Your task to perform on an android device: add a contact in the contacts app Image 0: 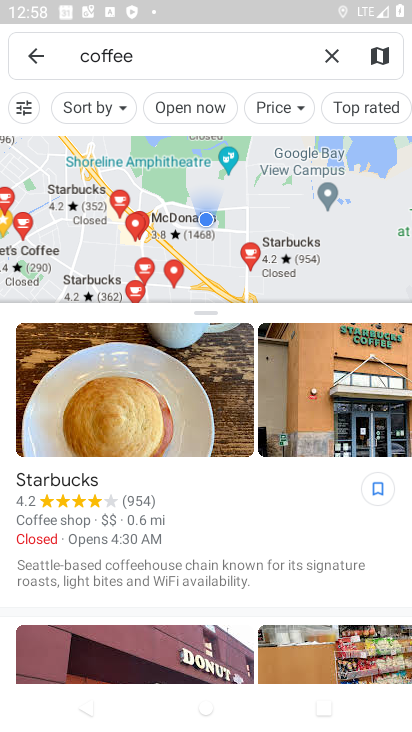
Step 0: press home button
Your task to perform on an android device: add a contact in the contacts app Image 1: 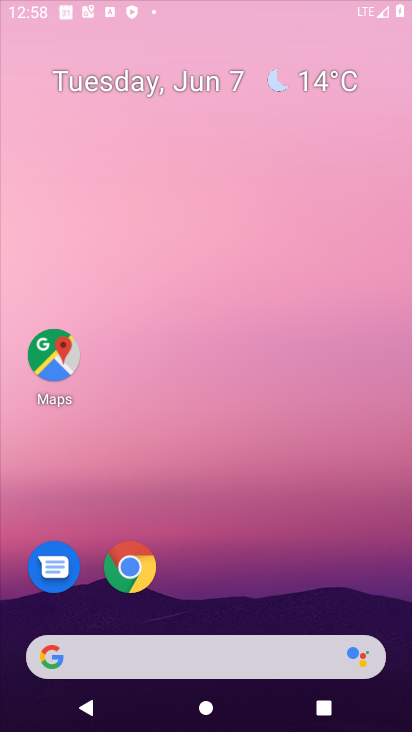
Step 1: drag from (293, 636) to (307, 132)
Your task to perform on an android device: add a contact in the contacts app Image 2: 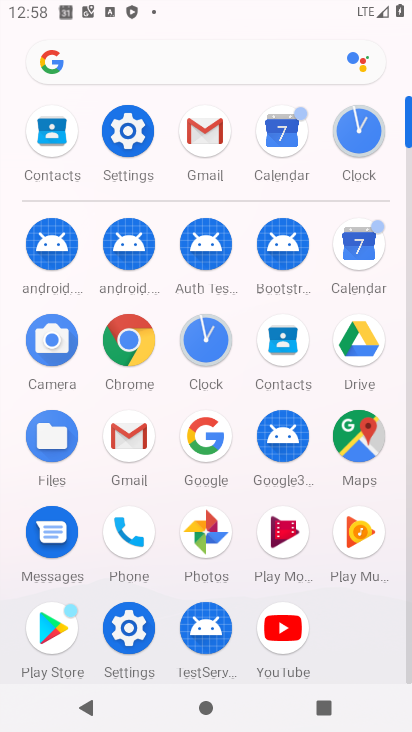
Step 2: click (276, 339)
Your task to perform on an android device: add a contact in the contacts app Image 3: 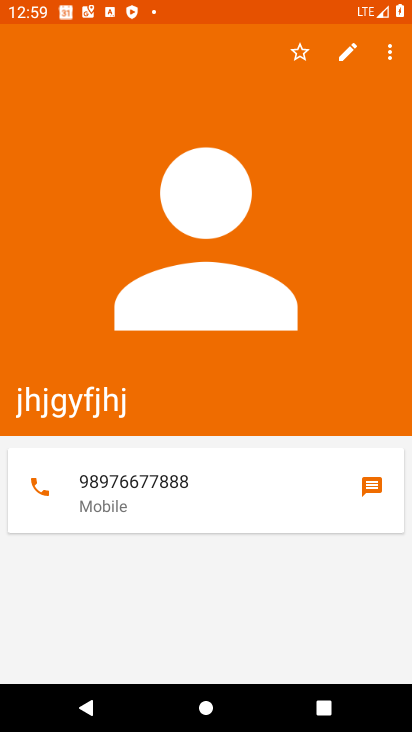
Step 3: press back button
Your task to perform on an android device: add a contact in the contacts app Image 4: 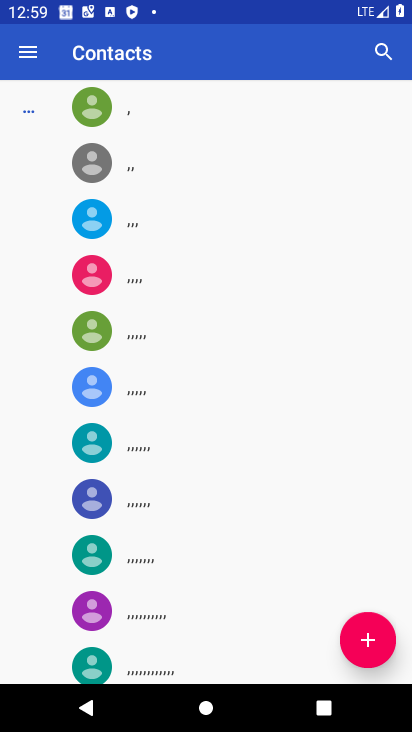
Step 4: click (353, 648)
Your task to perform on an android device: add a contact in the contacts app Image 5: 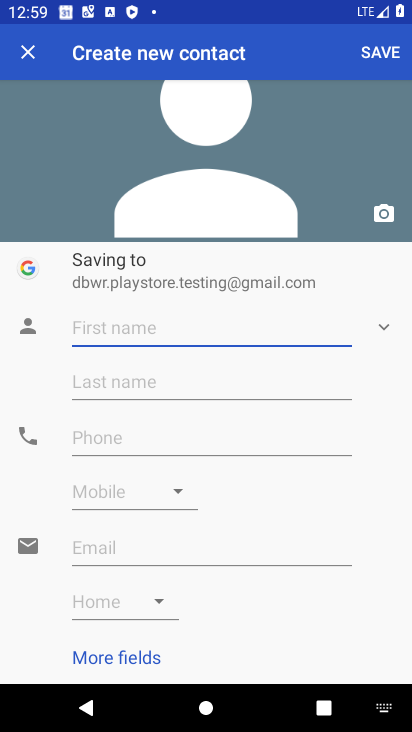
Step 5: type "jkggjgjjggggggg"
Your task to perform on an android device: add a contact in the contacts app Image 6: 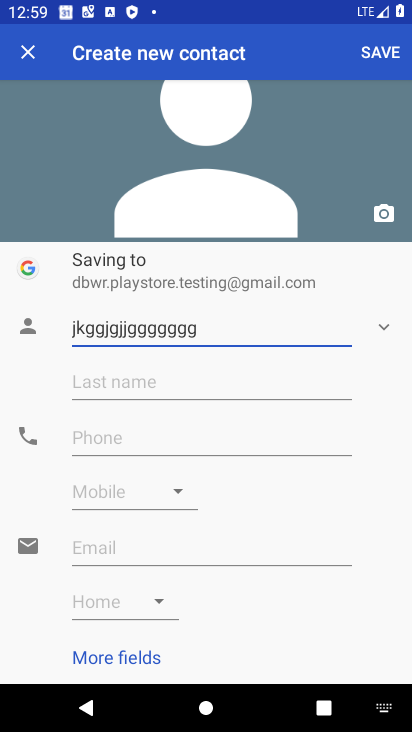
Step 6: click (153, 433)
Your task to perform on an android device: add a contact in the contacts app Image 7: 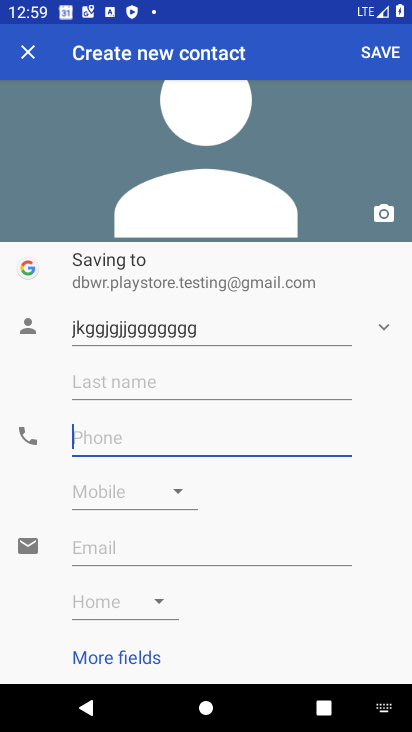
Step 7: type "98776667788"
Your task to perform on an android device: add a contact in the contacts app Image 8: 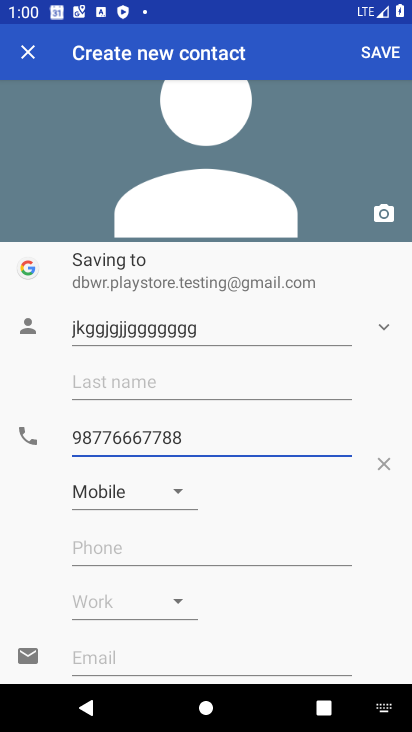
Step 8: click (375, 40)
Your task to perform on an android device: add a contact in the contacts app Image 9: 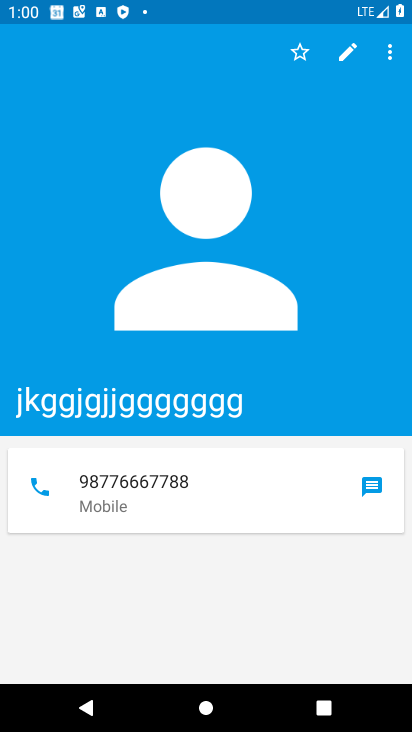
Step 9: task complete